Your task to perform on an android device: check data usage Image 0: 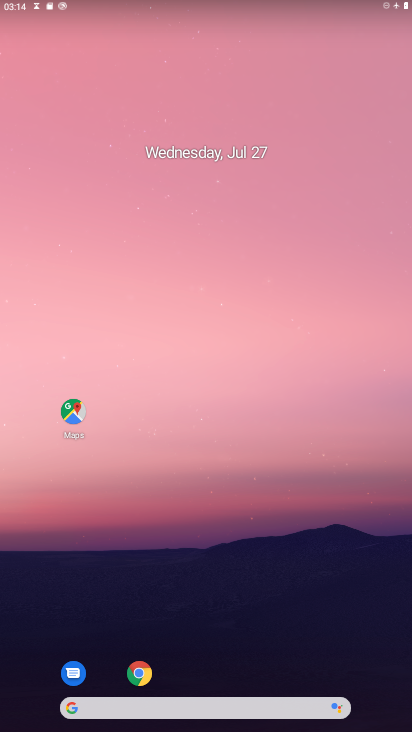
Step 0: drag from (58, 648) to (64, 290)
Your task to perform on an android device: check data usage Image 1: 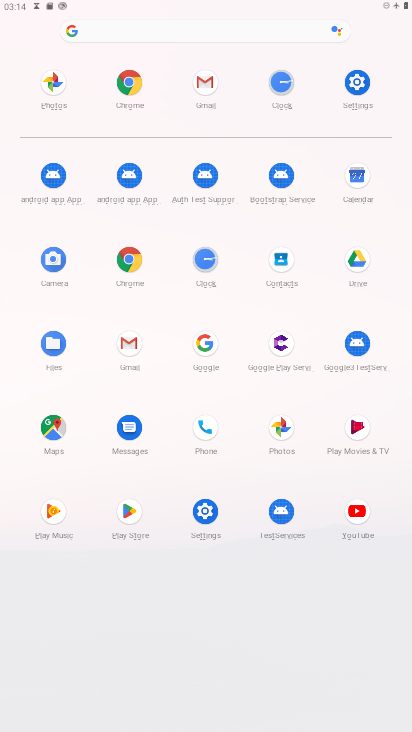
Step 1: click (355, 75)
Your task to perform on an android device: check data usage Image 2: 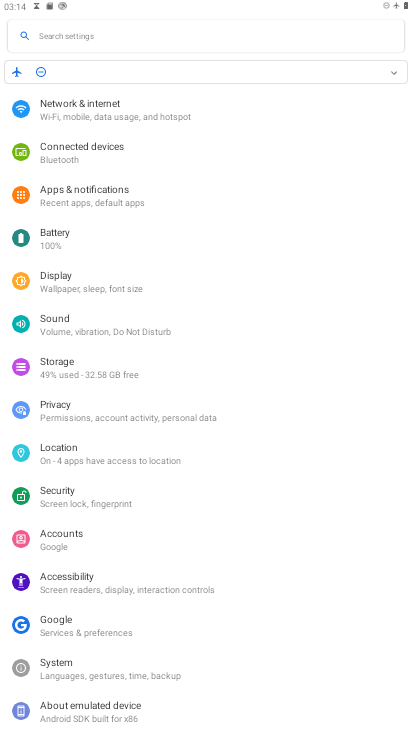
Step 2: click (98, 106)
Your task to perform on an android device: check data usage Image 3: 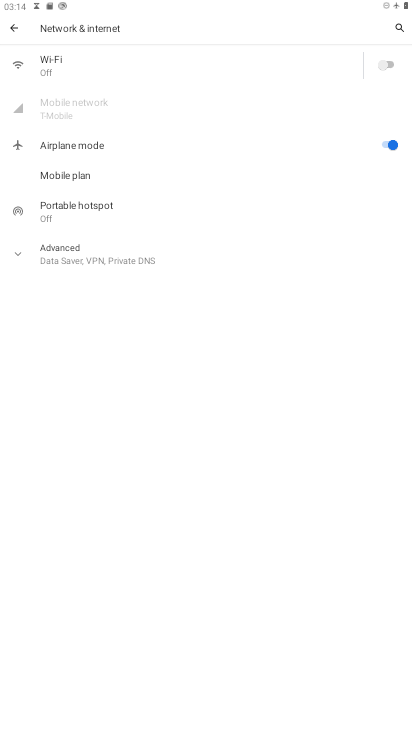
Step 3: click (76, 109)
Your task to perform on an android device: check data usage Image 4: 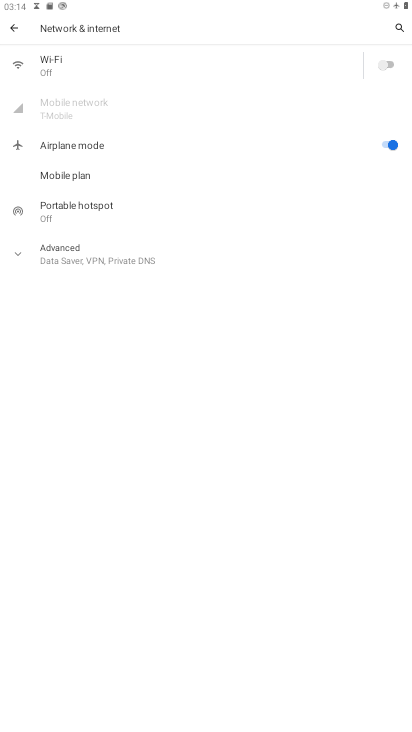
Step 4: click (76, 109)
Your task to perform on an android device: check data usage Image 5: 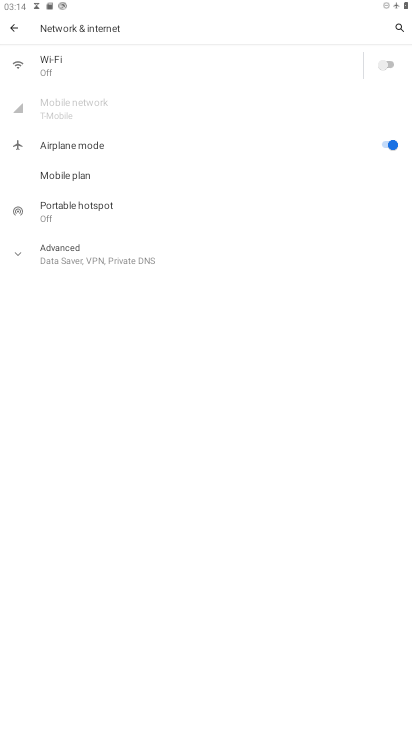
Step 5: task complete